Your task to perform on an android device: When is my next appointment? Image 0: 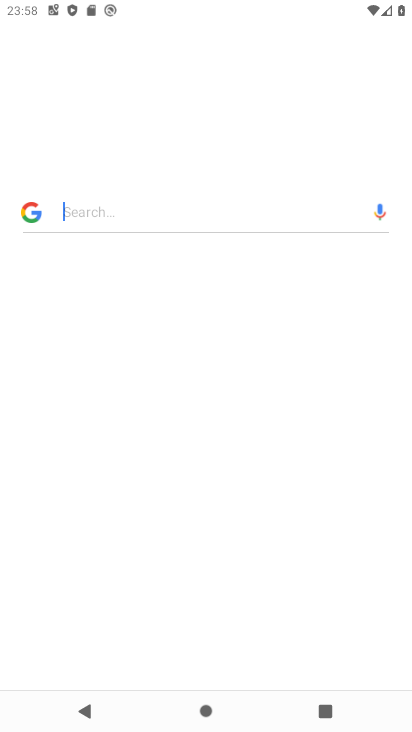
Step 0: drag from (229, 586) to (164, 172)
Your task to perform on an android device: When is my next appointment? Image 1: 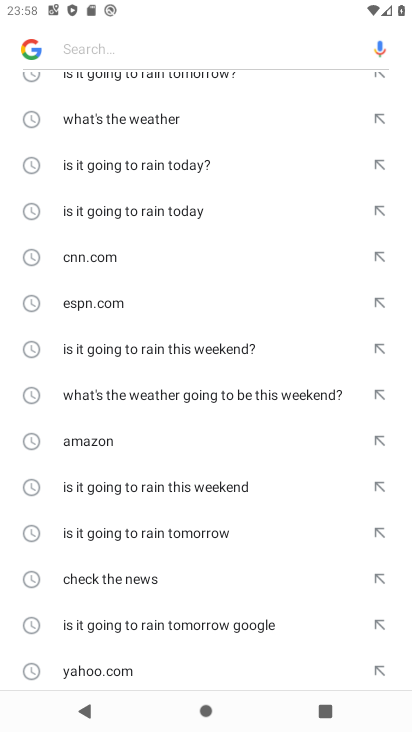
Step 1: press home button
Your task to perform on an android device: When is my next appointment? Image 2: 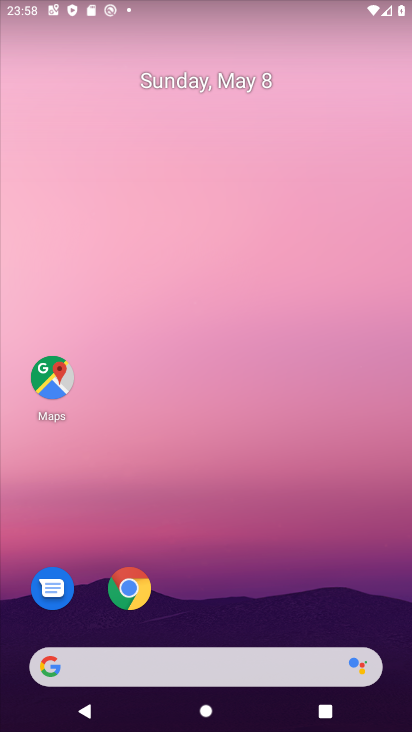
Step 2: drag from (242, 517) to (157, 50)
Your task to perform on an android device: When is my next appointment? Image 3: 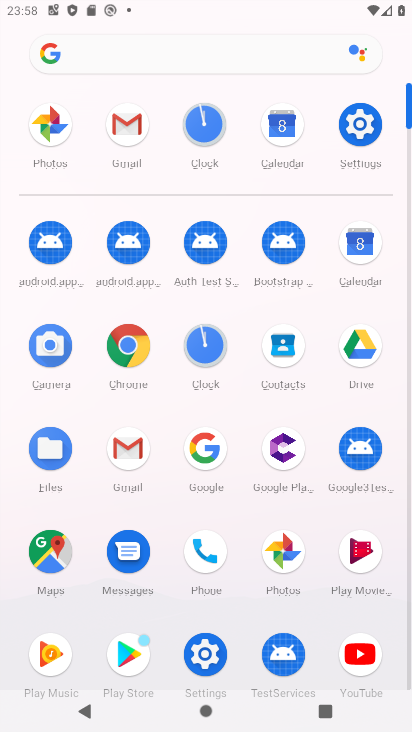
Step 3: click (363, 239)
Your task to perform on an android device: When is my next appointment? Image 4: 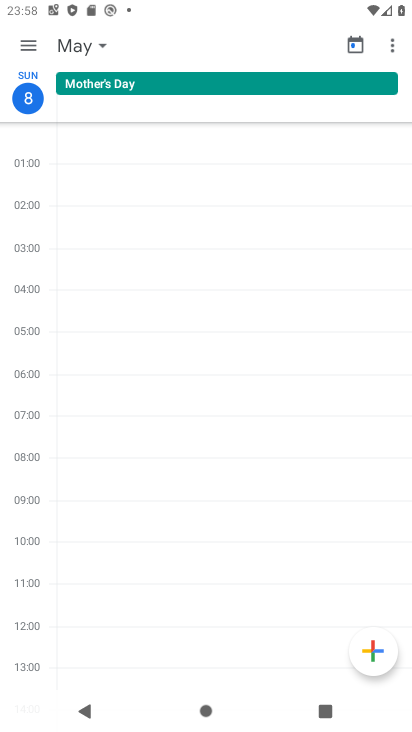
Step 4: task complete